Your task to perform on an android device: Go to Maps Image 0: 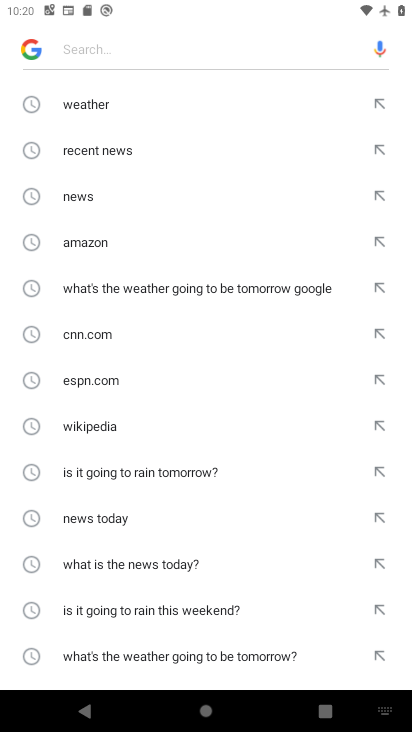
Step 0: press home button
Your task to perform on an android device: Go to Maps Image 1: 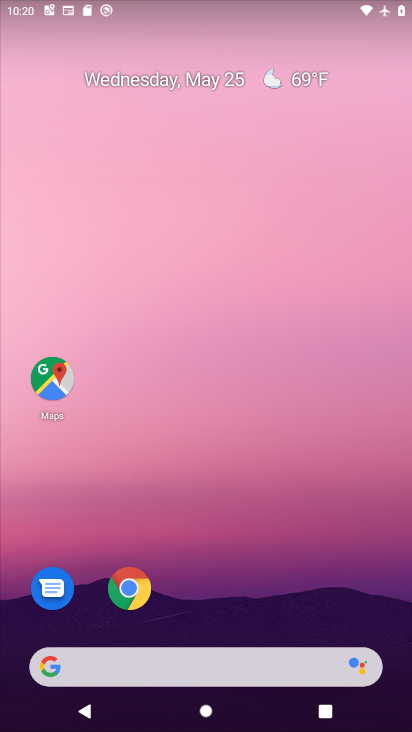
Step 1: drag from (383, 622) to (381, 290)
Your task to perform on an android device: Go to Maps Image 2: 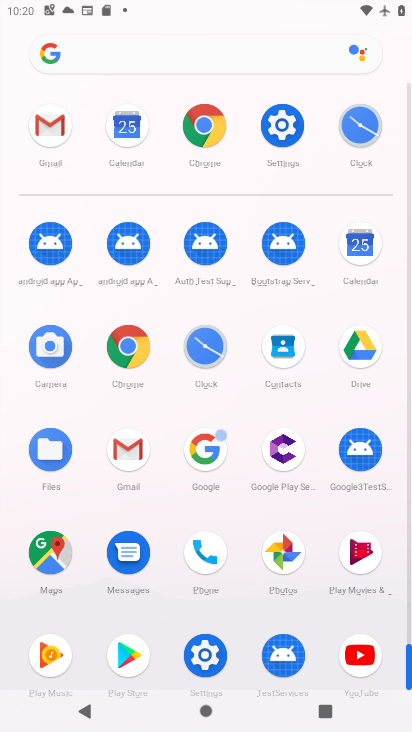
Step 2: click (55, 544)
Your task to perform on an android device: Go to Maps Image 3: 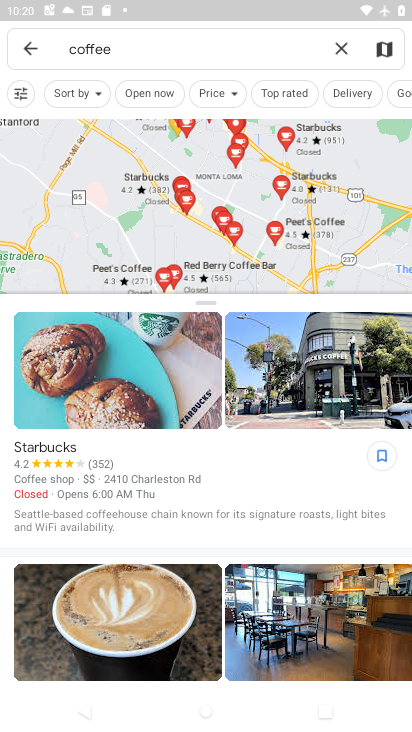
Step 3: task complete